Your task to perform on an android device: Open Google Image 0: 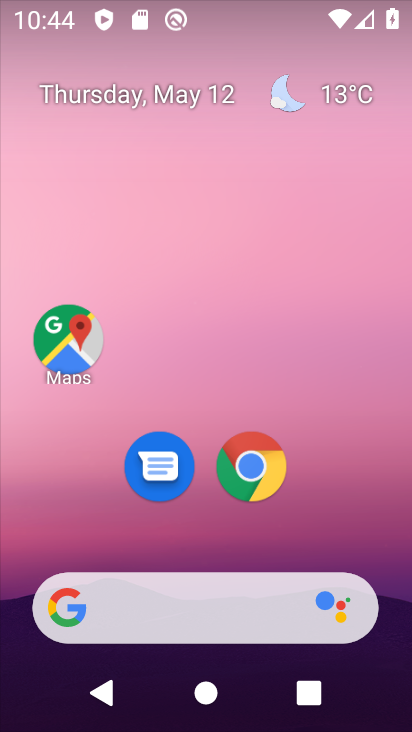
Step 0: drag from (345, 528) to (307, 117)
Your task to perform on an android device: Open Google Image 1: 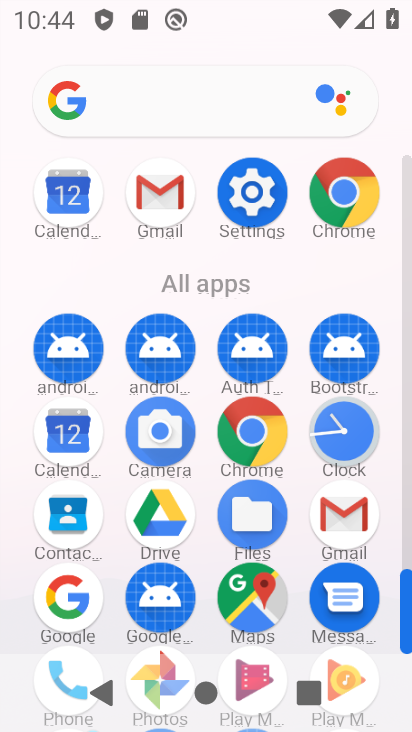
Step 1: click (264, 450)
Your task to perform on an android device: Open Google Image 2: 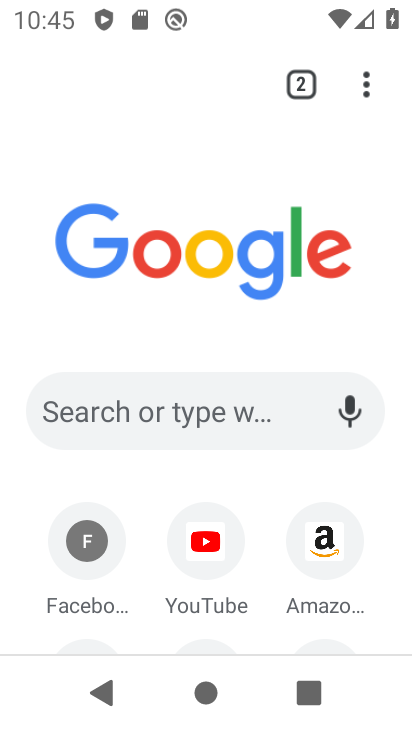
Step 2: drag from (261, 470) to (262, 215)
Your task to perform on an android device: Open Google Image 3: 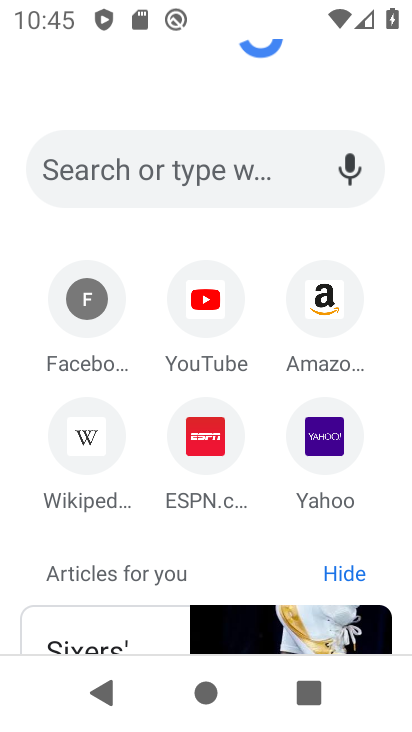
Step 3: press home button
Your task to perform on an android device: Open Google Image 4: 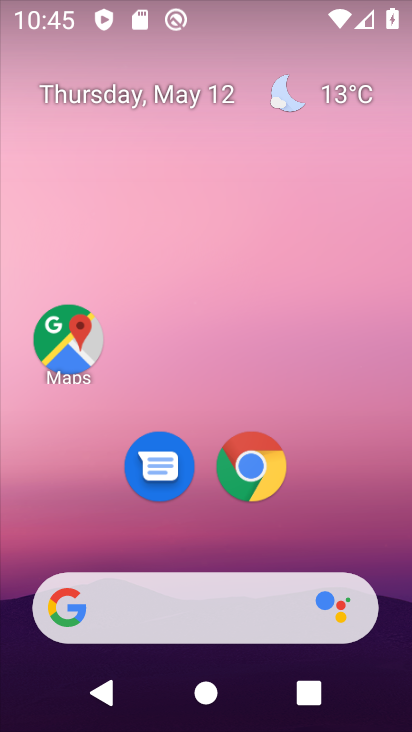
Step 4: drag from (367, 517) to (338, 112)
Your task to perform on an android device: Open Google Image 5: 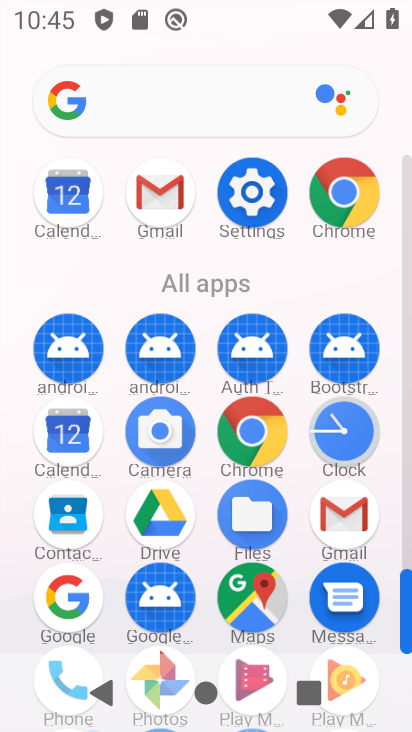
Step 5: click (55, 594)
Your task to perform on an android device: Open Google Image 6: 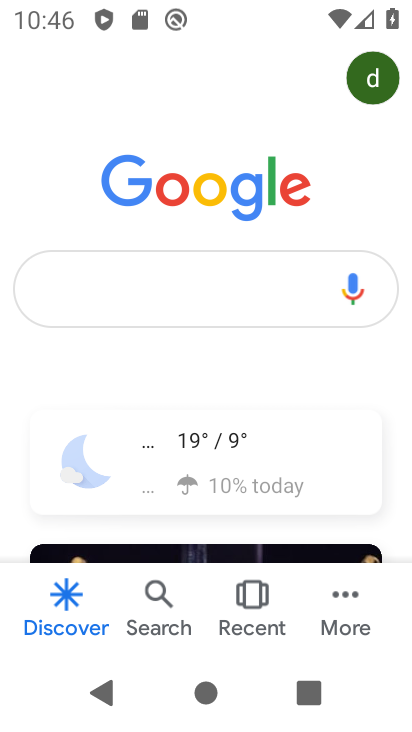
Step 6: task complete